Your task to perform on an android device: turn on translation in the chrome app Image 0: 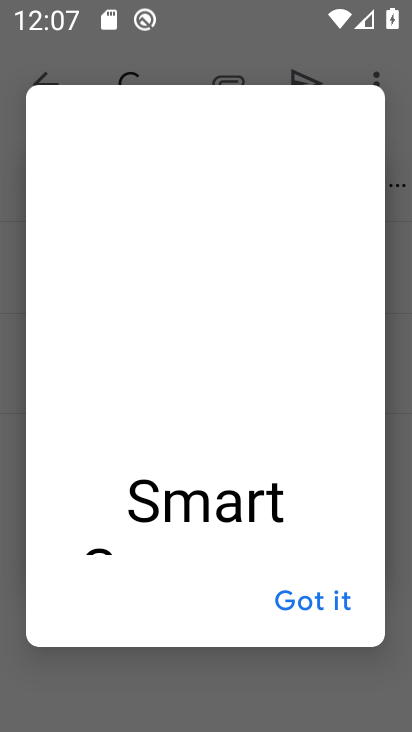
Step 0: press home button
Your task to perform on an android device: turn on translation in the chrome app Image 1: 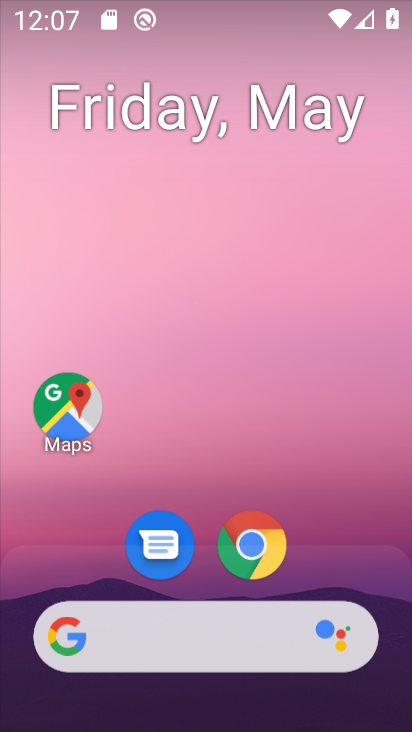
Step 1: click (250, 551)
Your task to perform on an android device: turn on translation in the chrome app Image 2: 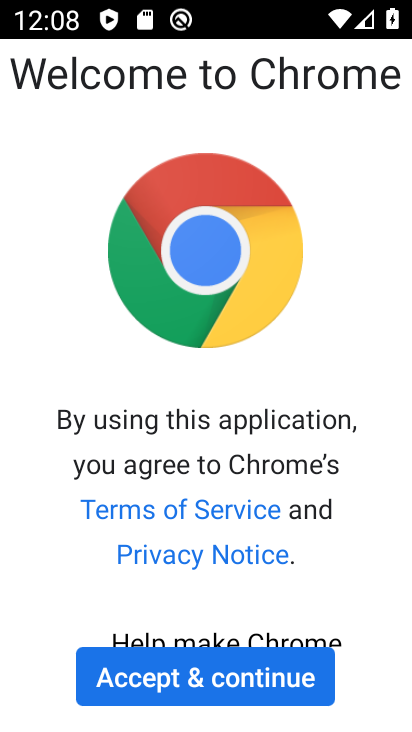
Step 2: click (164, 694)
Your task to perform on an android device: turn on translation in the chrome app Image 3: 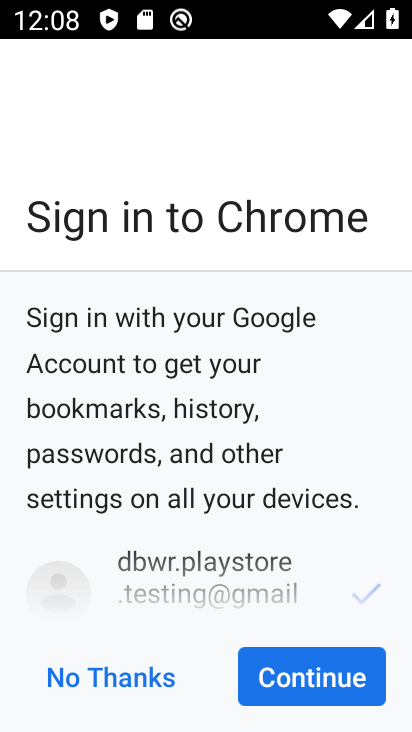
Step 3: click (331, 692)
Your task to perform on an android device: turn on translation in the chrome app Image 4: 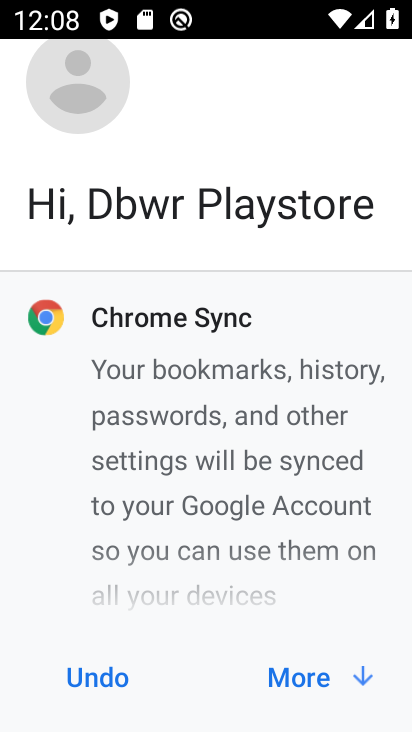
Step 4: click (300, 672)
Your task to perform on an android device: turn on translation in the chrome app Image 5: 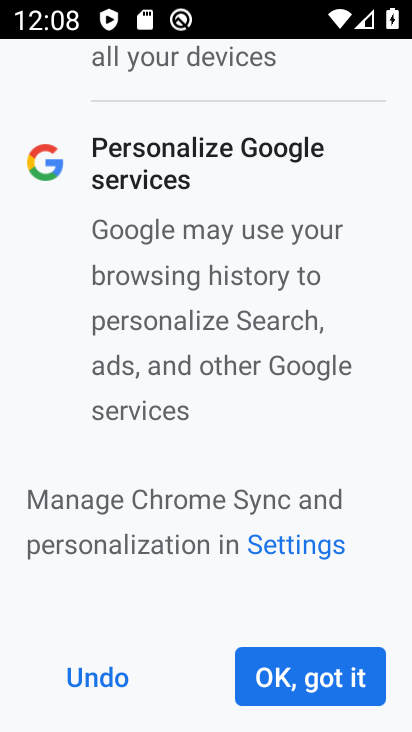
Step 5: click (300, 672)
Your task to perform on an android device: turn on translation in the chrome app Image 6: 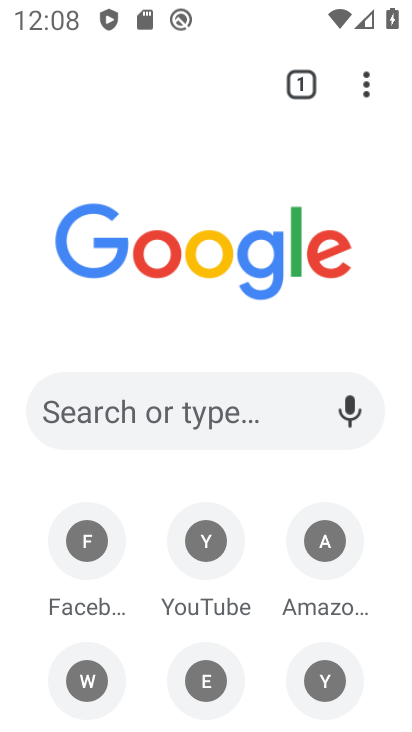
Step 6: click (361, 85)
Your task to perform on an android device: turn on translation in the chrome app Image 7: 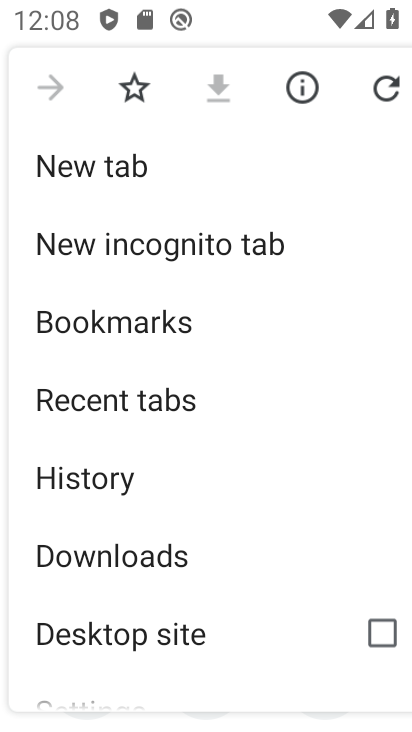
Step 7: drag from (134, 617) to (125, 280)
Your task to perform on an android device: turn on translation in the chrome app Image 8: 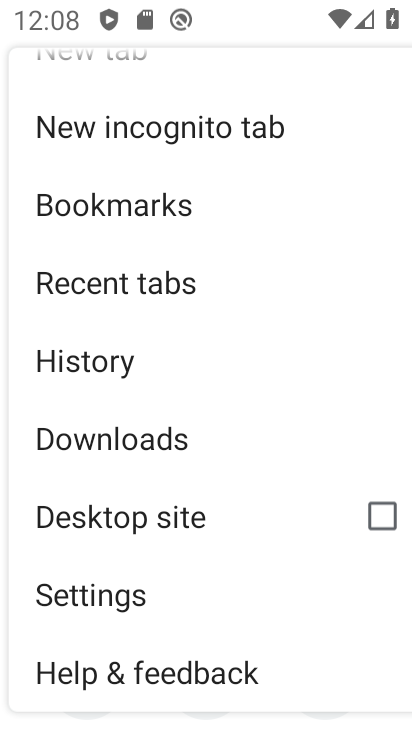
Step 8: click (114, 605)
Your task to perform on an android device: turn on translation in the chrome app Image 9: 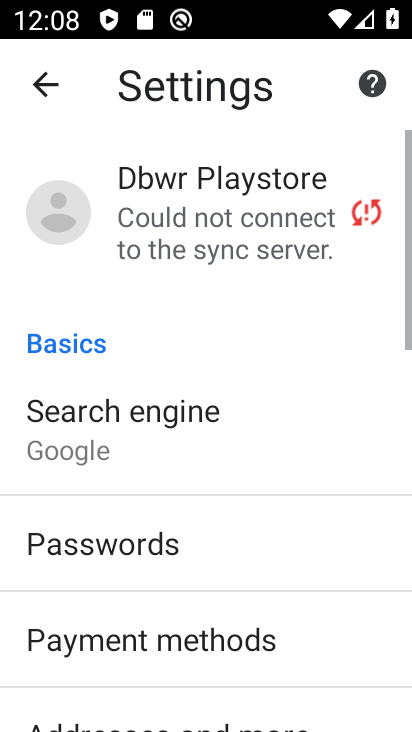
Step 9: drag from (136, 650) to (169, 292)
Your task to perform on an android device: turn on translation in the chrome app Image 10: 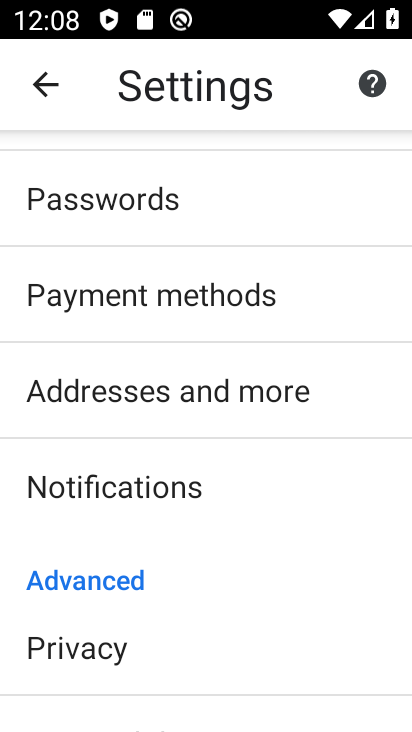
Step 10: drag from (137, 623) to (183, 363)
Your task to perform on an android device: turn on translation in the chrome app Image 11: 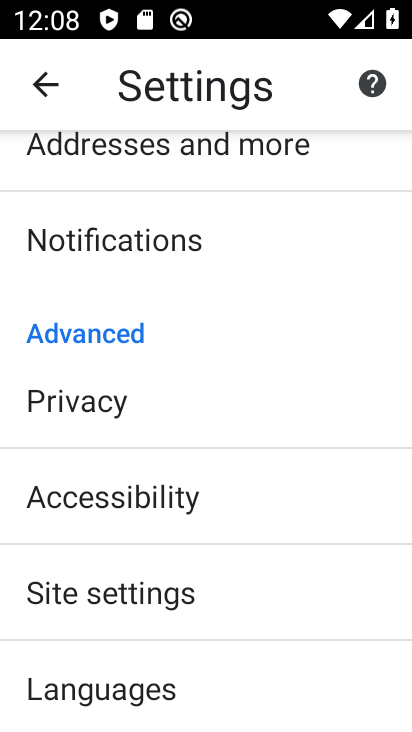
Step 11: click (115, 698)
Your task to perform on an android device: turn on translation in the chrome app Image 12: 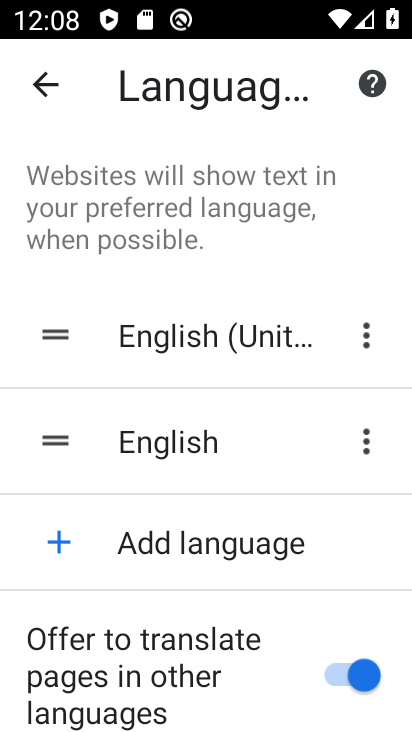
Step 12: task complete